Your task to perform on an android device: star an email in the gmail app Image 0: 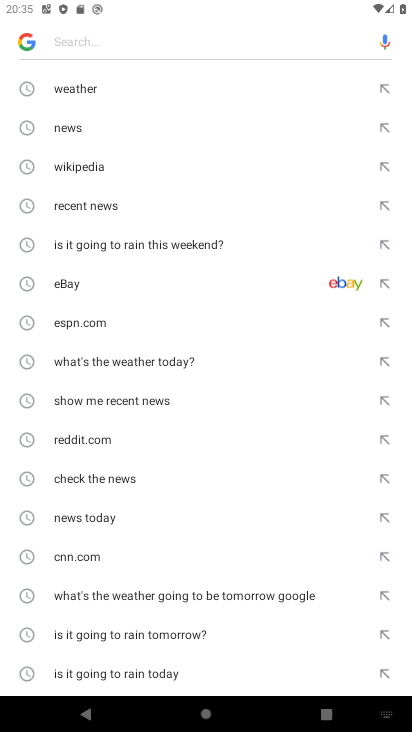
Step 0: press home button
Your task to perform on an android device: star an email in the gmail app Image 1: 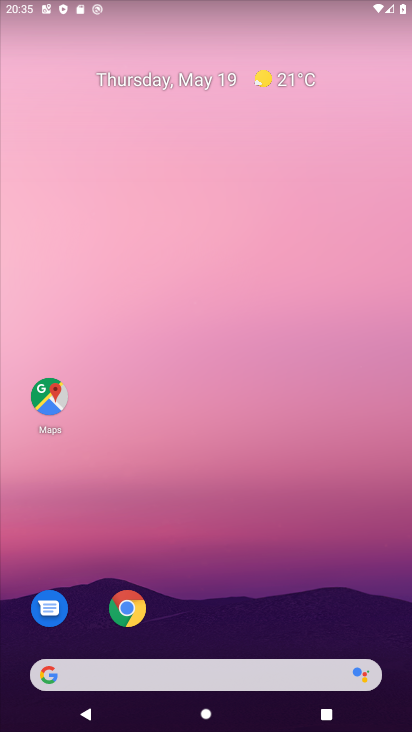
Step 1: drag from (283, 575) to (179, 140)
Your task to perform on an android device: star an email in the gmail app Image 2: 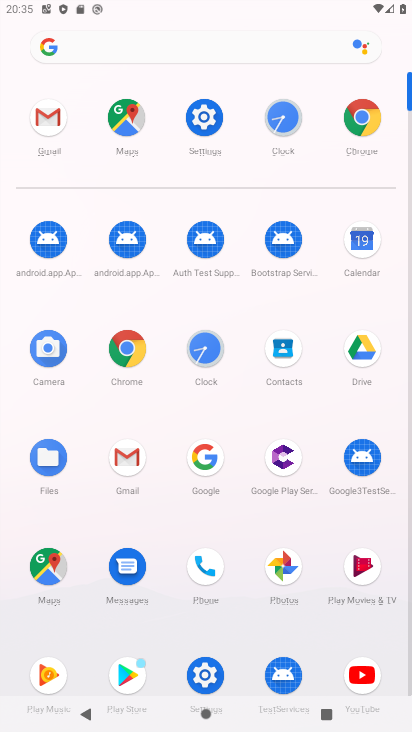
Step 2: click (130, 452)
Your task to perform on an android device: star an email in the gmail app Image 3: 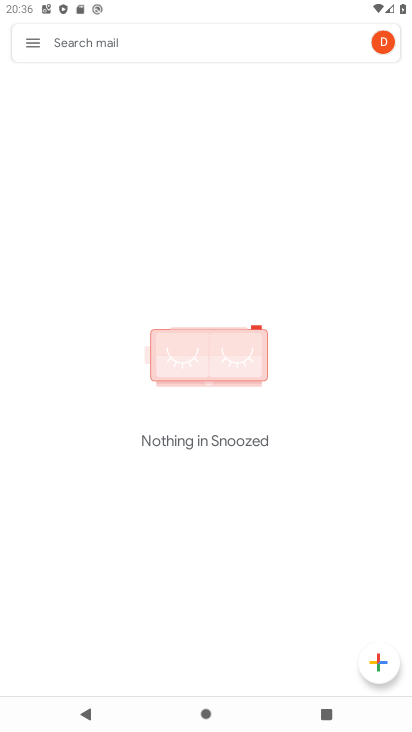
Step 3: click (36, 36)
Your task to perform on an android device: star an email in the gmail app Image 4: 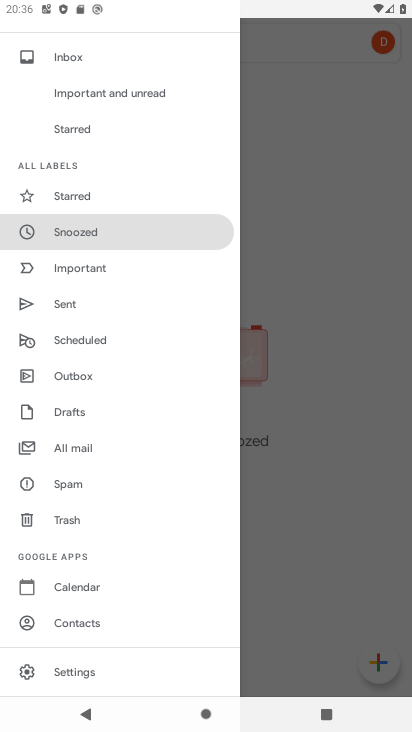
Step 4: click (92, 446)
Your task to perform on an android device: star an email in the gmail app Image 5: 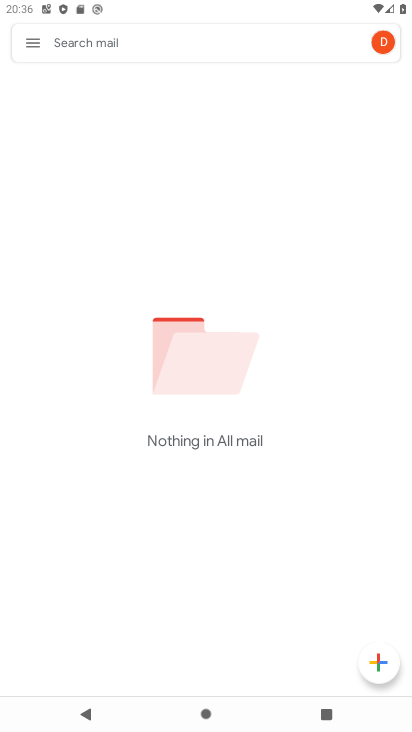
Step 5: task complete